Your task to perform on an android device: open a bookmark in the chrome app Image 0: 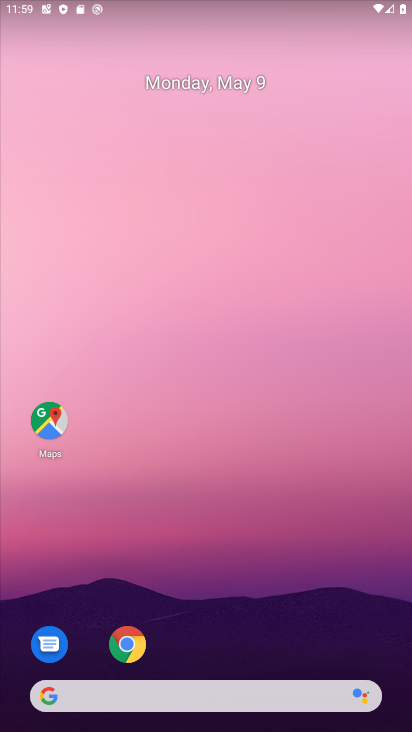
Step 0: click (119, 635)
Your task to perform on an android device: open a bookmark in the chrome app Image 1: 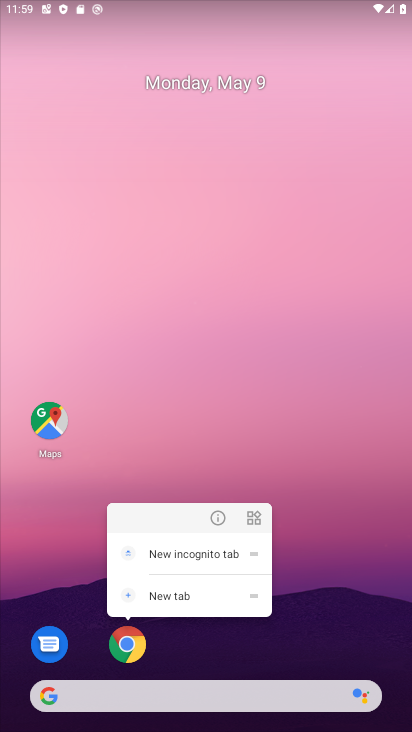
Step 1: click (120, 657)
Your task to perform on an android device: open a bookmark in the chrome app Image 2: 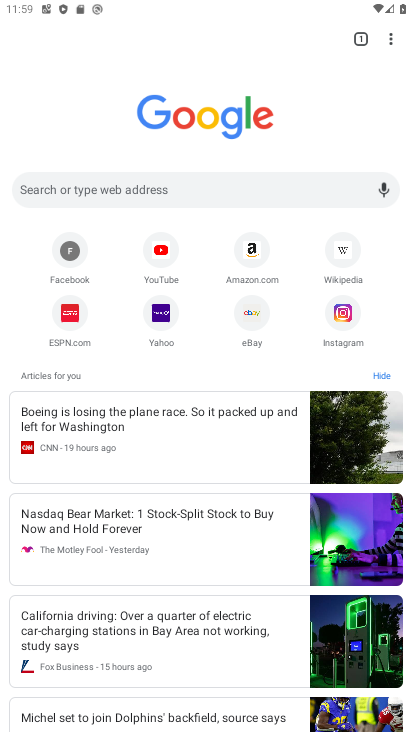
Step 2: task complete